Your task to perform on an android device: Open calendar and show me the third week of next month Image 0: 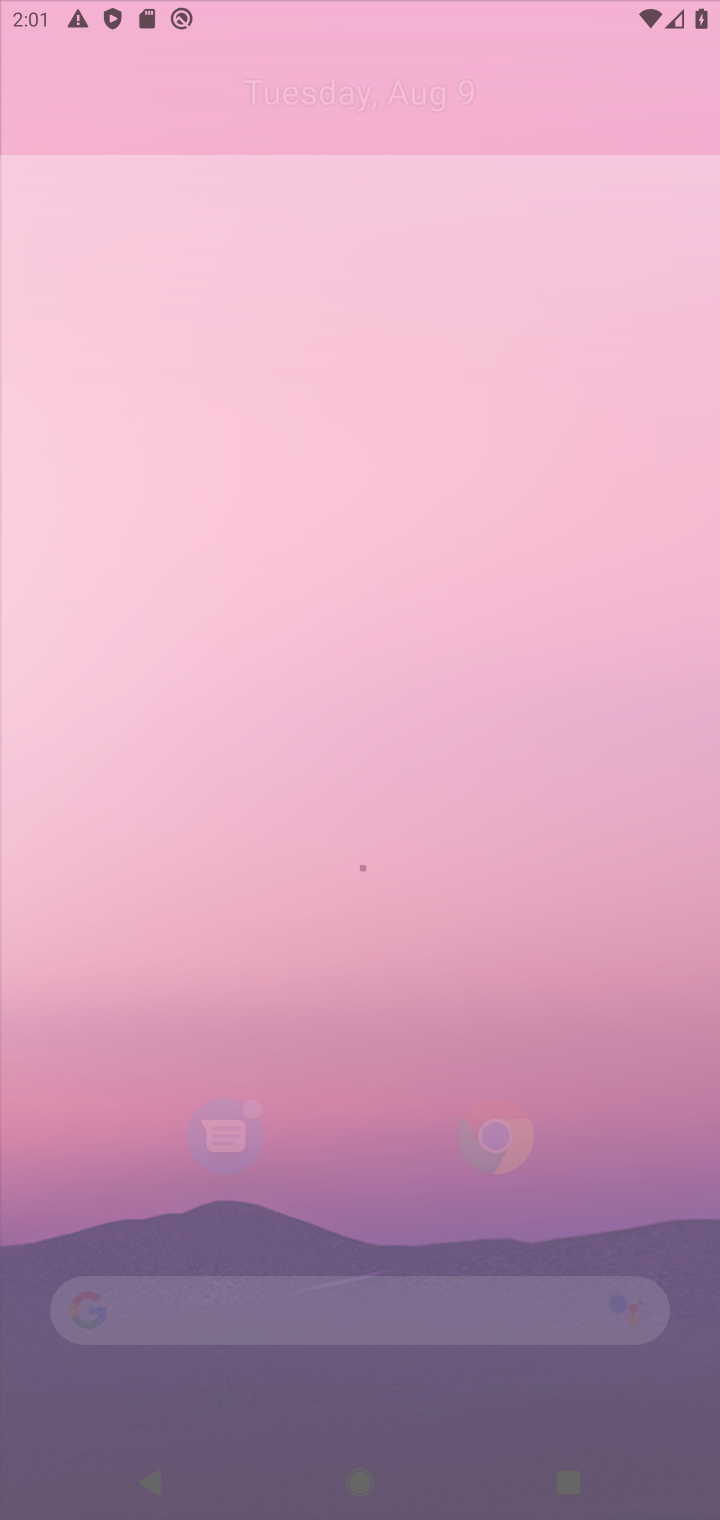
Step 0: press home button
Your task to perform on an android device: Open calendar and show me the third week of next month Image 1: 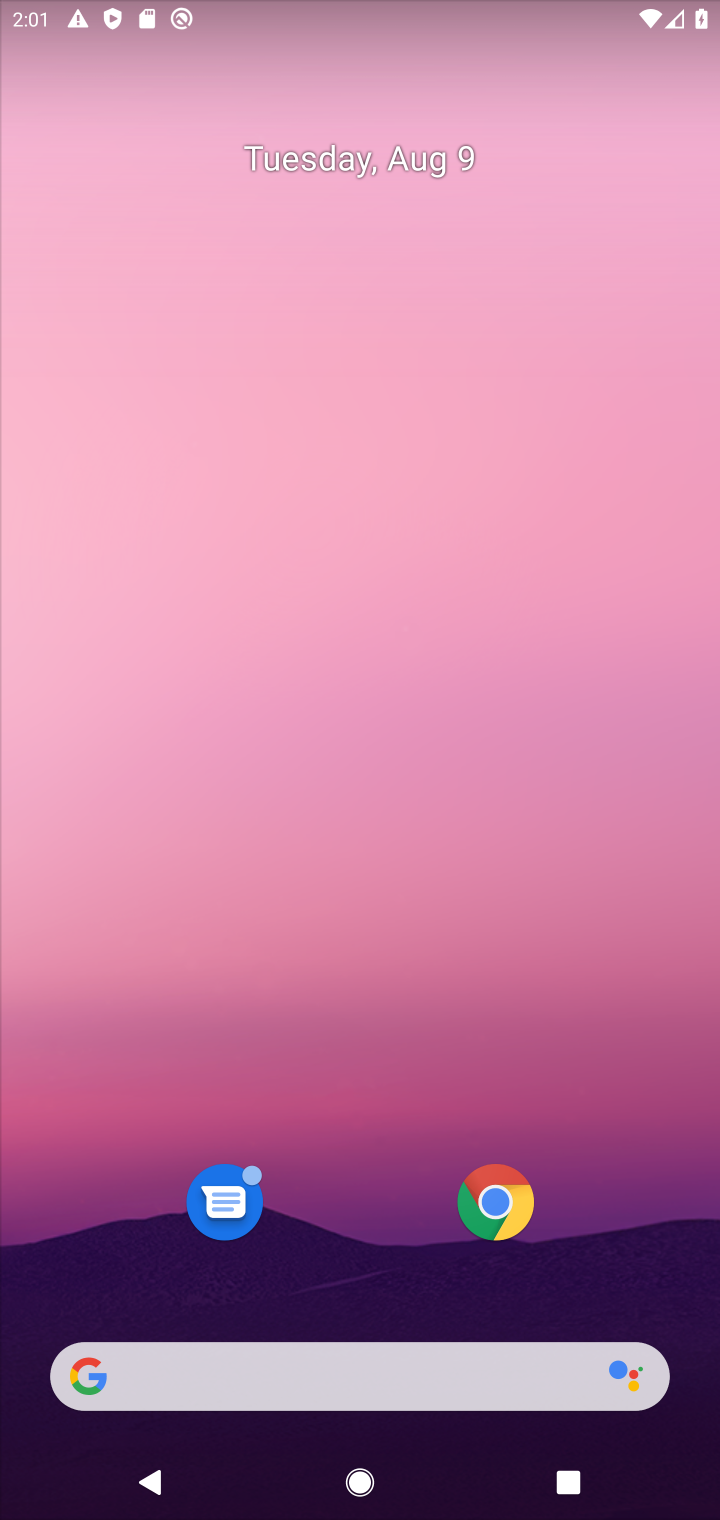
Step 1: drag from (293, 1382) to (369, 113)
Your task to perform on an android device: Open calendar and show me the third week of next month Image 2: 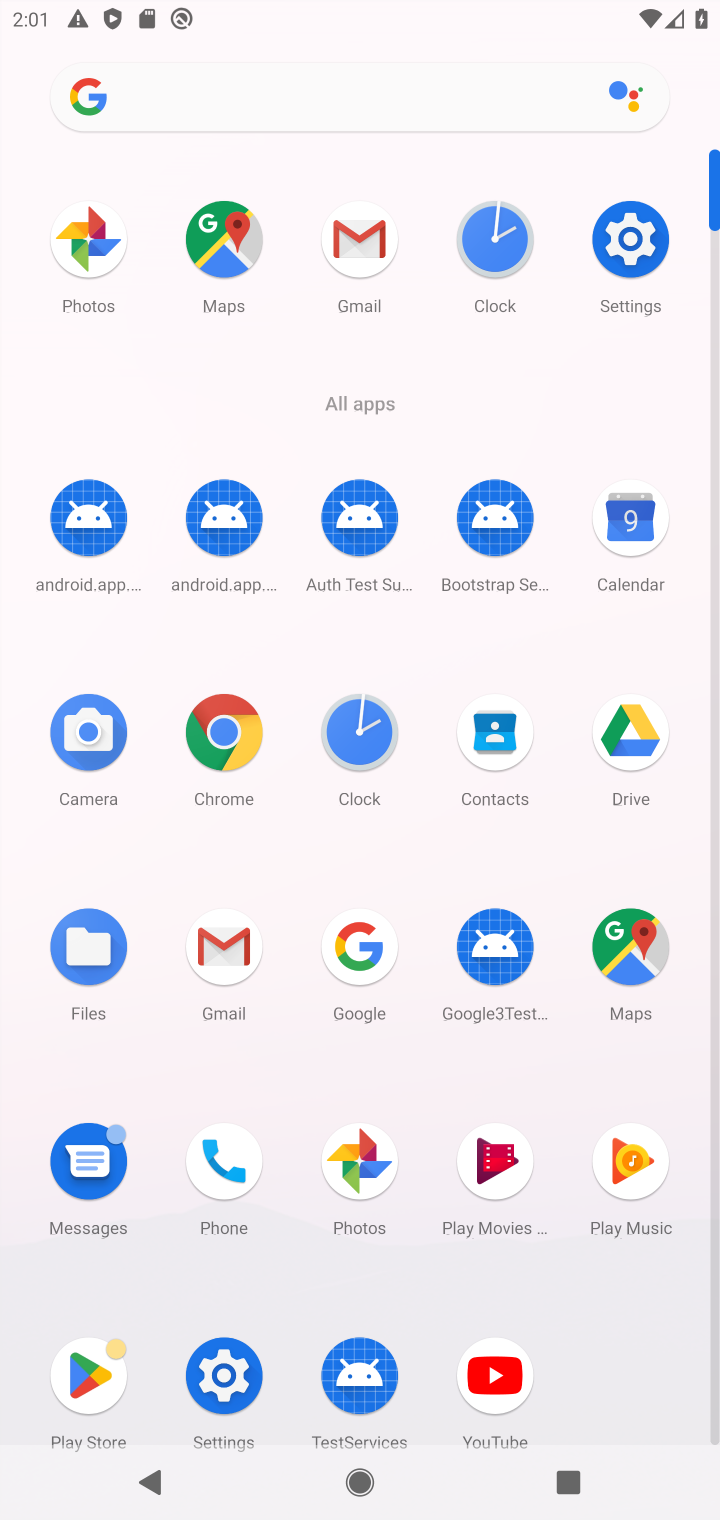
Step 2: click (208, 745)
Your task to perform on an android device: Open calendar and show me the third week of next month Image 3: 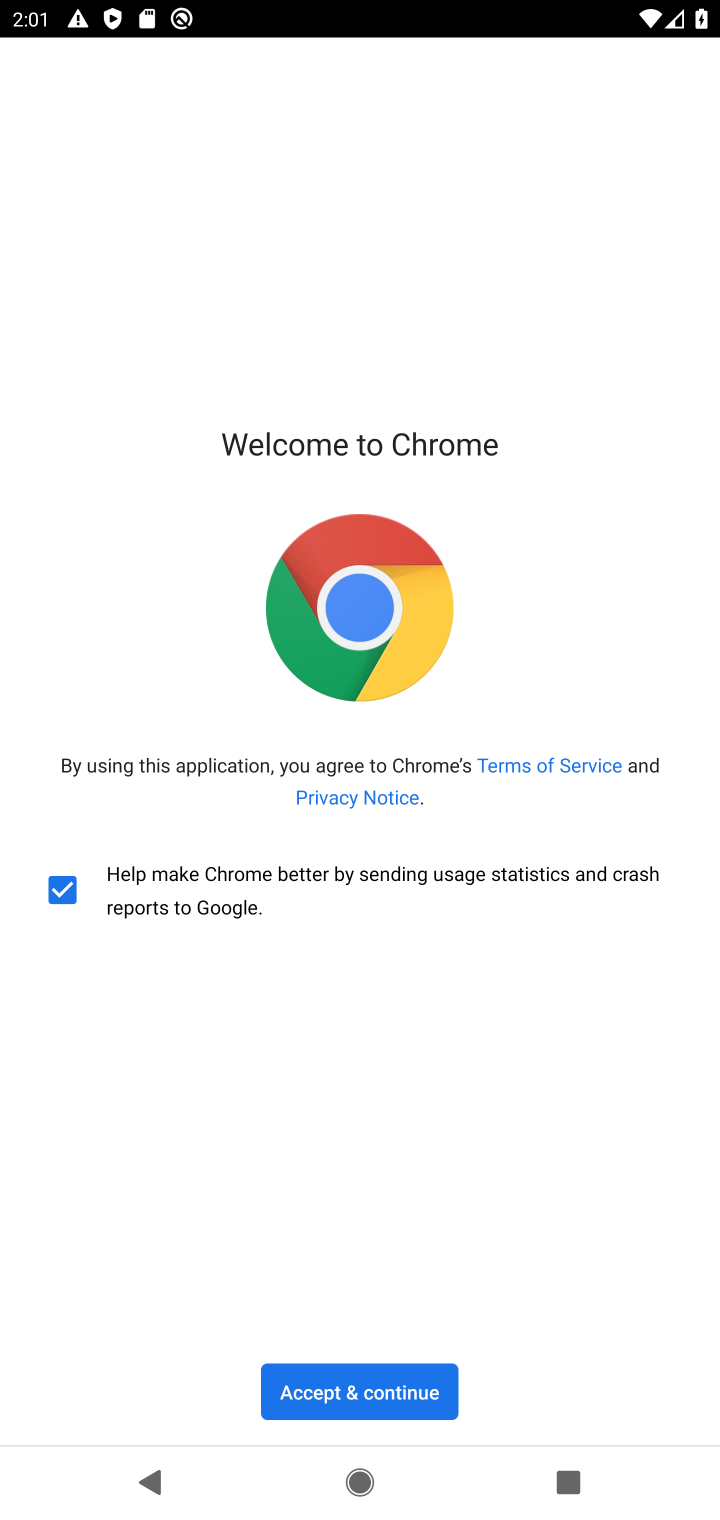
Step 3: click (319, 1373)
Your task to perform on an android device: Open calendar and show me the third week of next month Image 4: 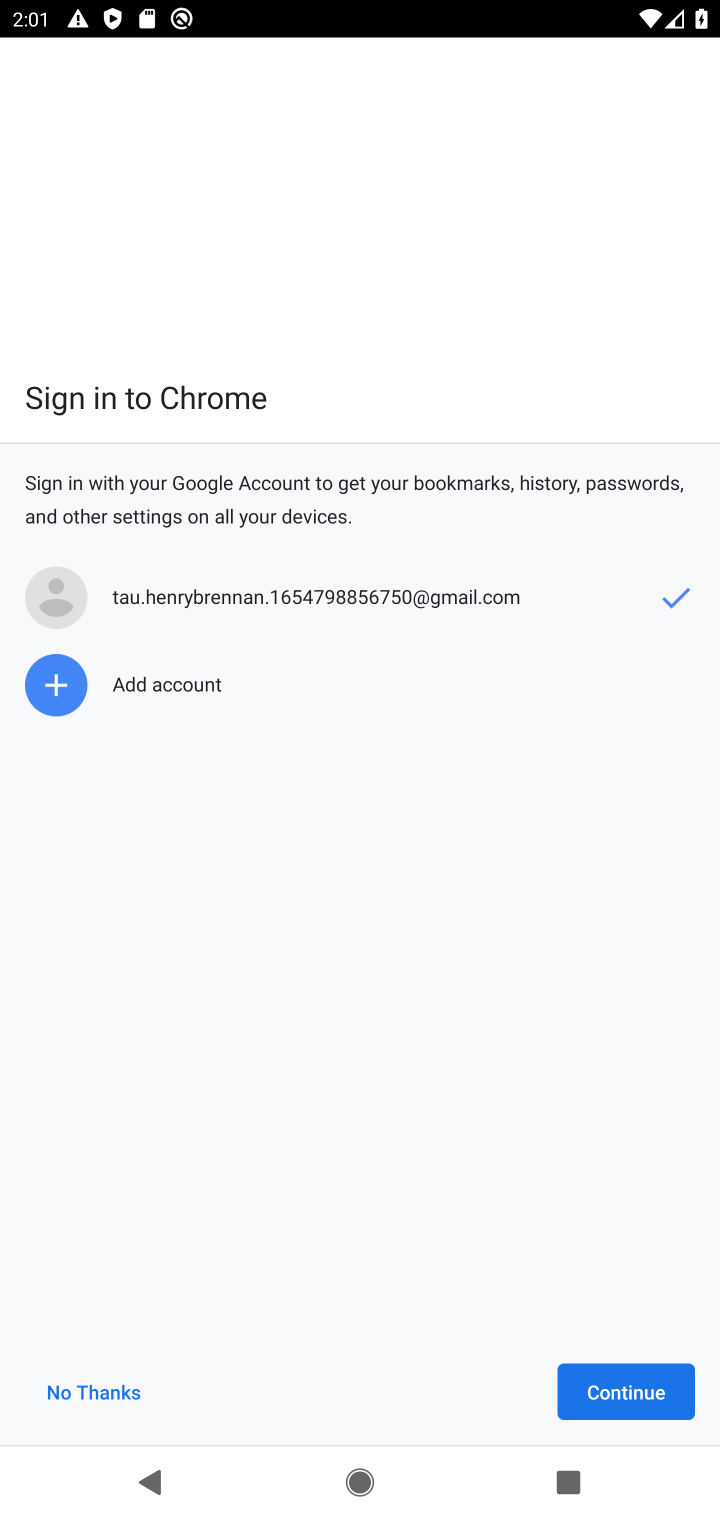
Step 4: click (91, 1393)
Your task to perform on an android device: Open calendar and show me the third week of next month Image 5: 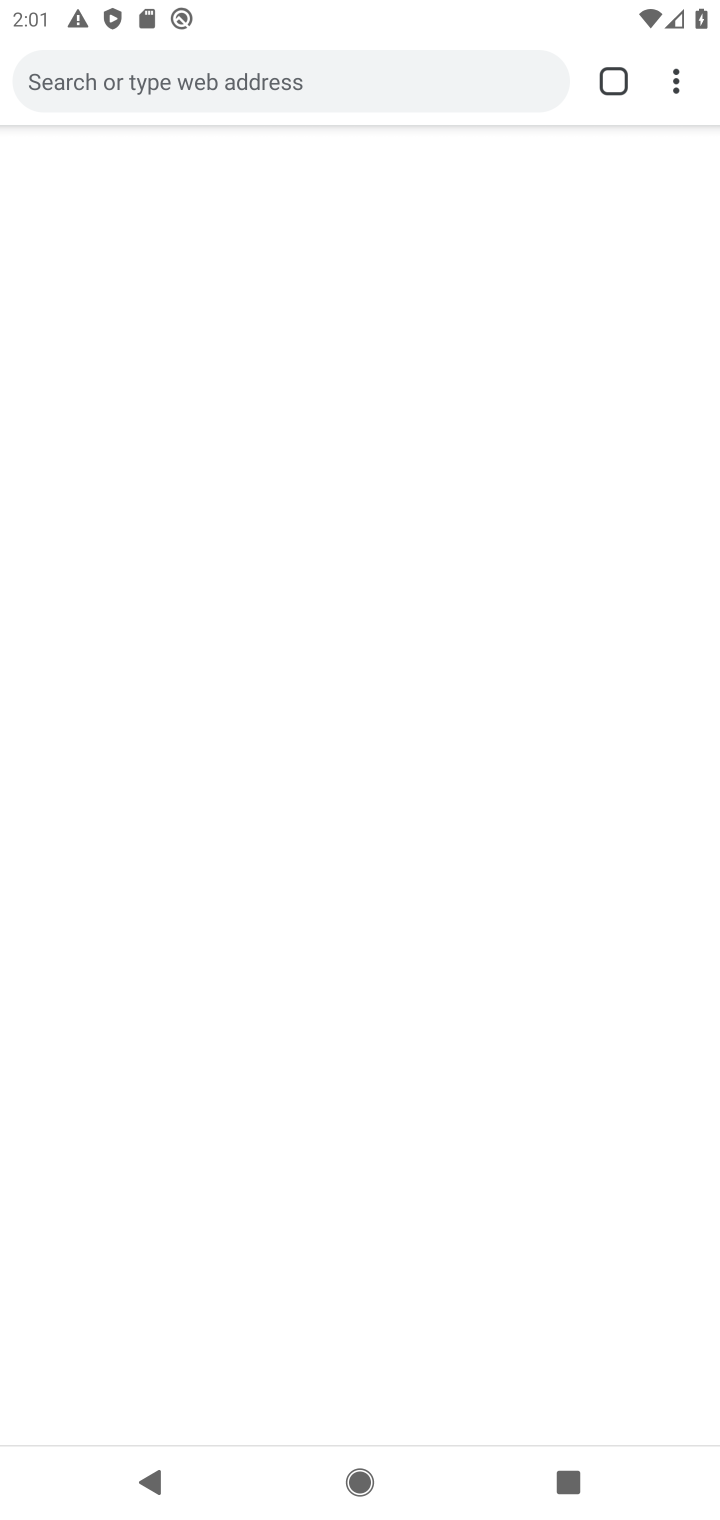
Step 5: press home button
Your task to perform on an android device: Open calendar and show me the third week of next month Image 6: 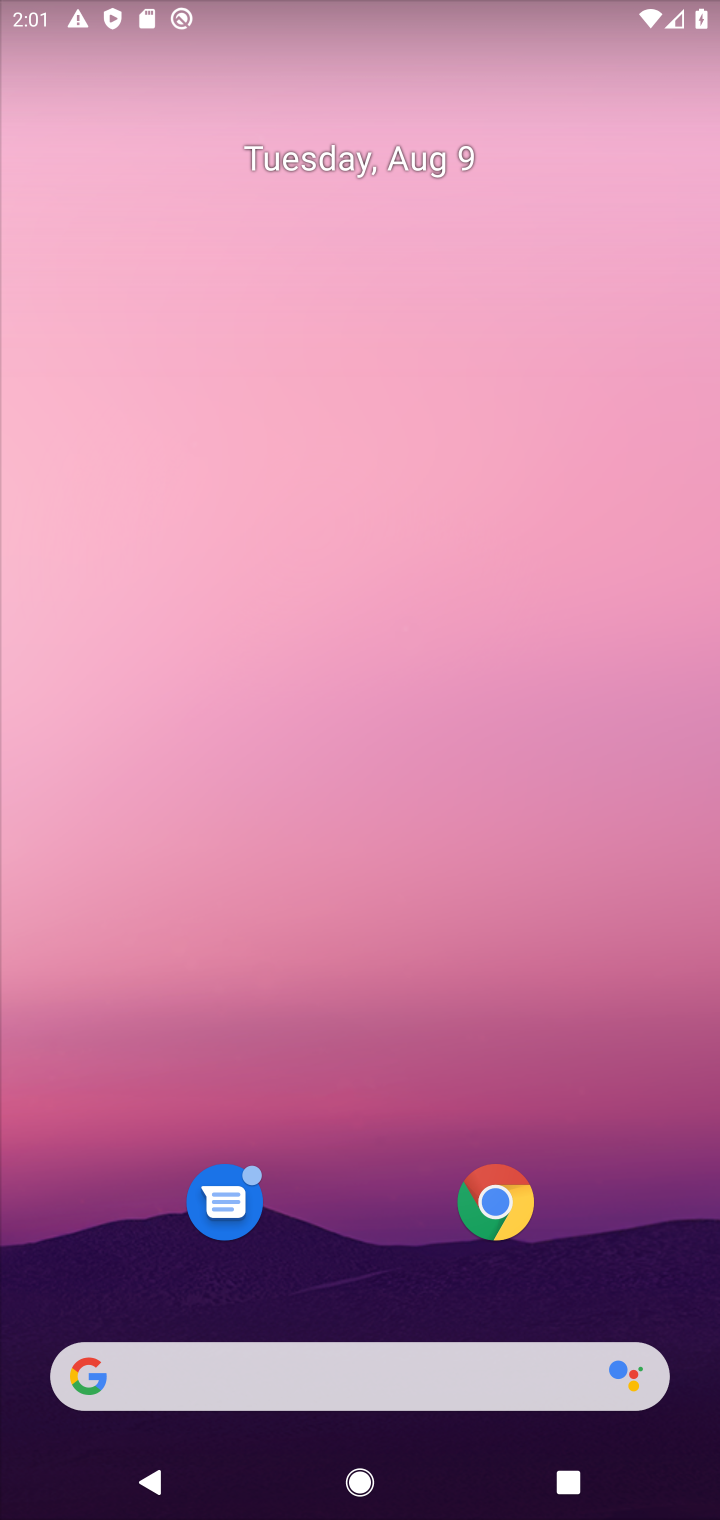
Step 6: drag from (349, 806) to (399, 531)
Your task to perform on an android device: Open calendar and show me the third week of next month Image 7: 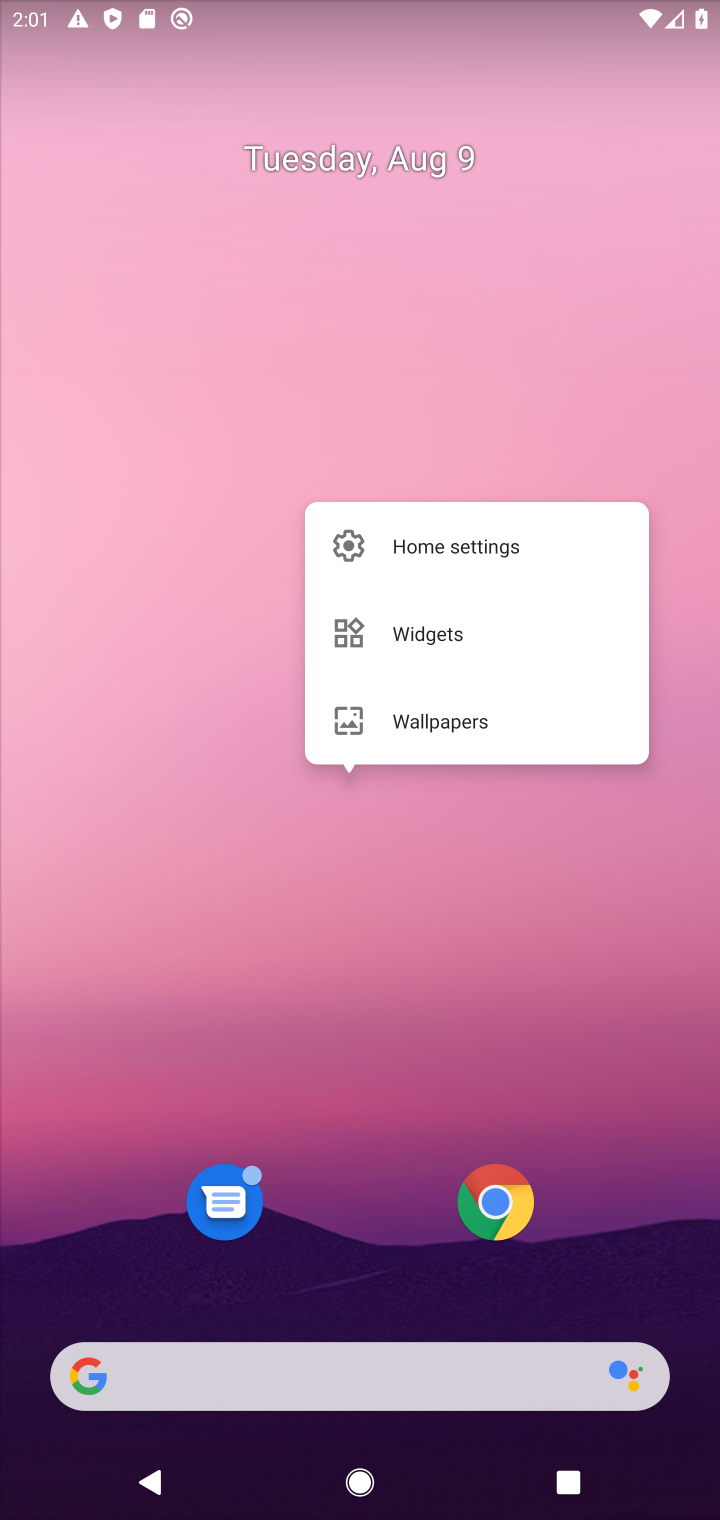
Step 7: click (602, 1157)
Your task to perform on an android device: Open calendar and show me the third week of next month Image 8: 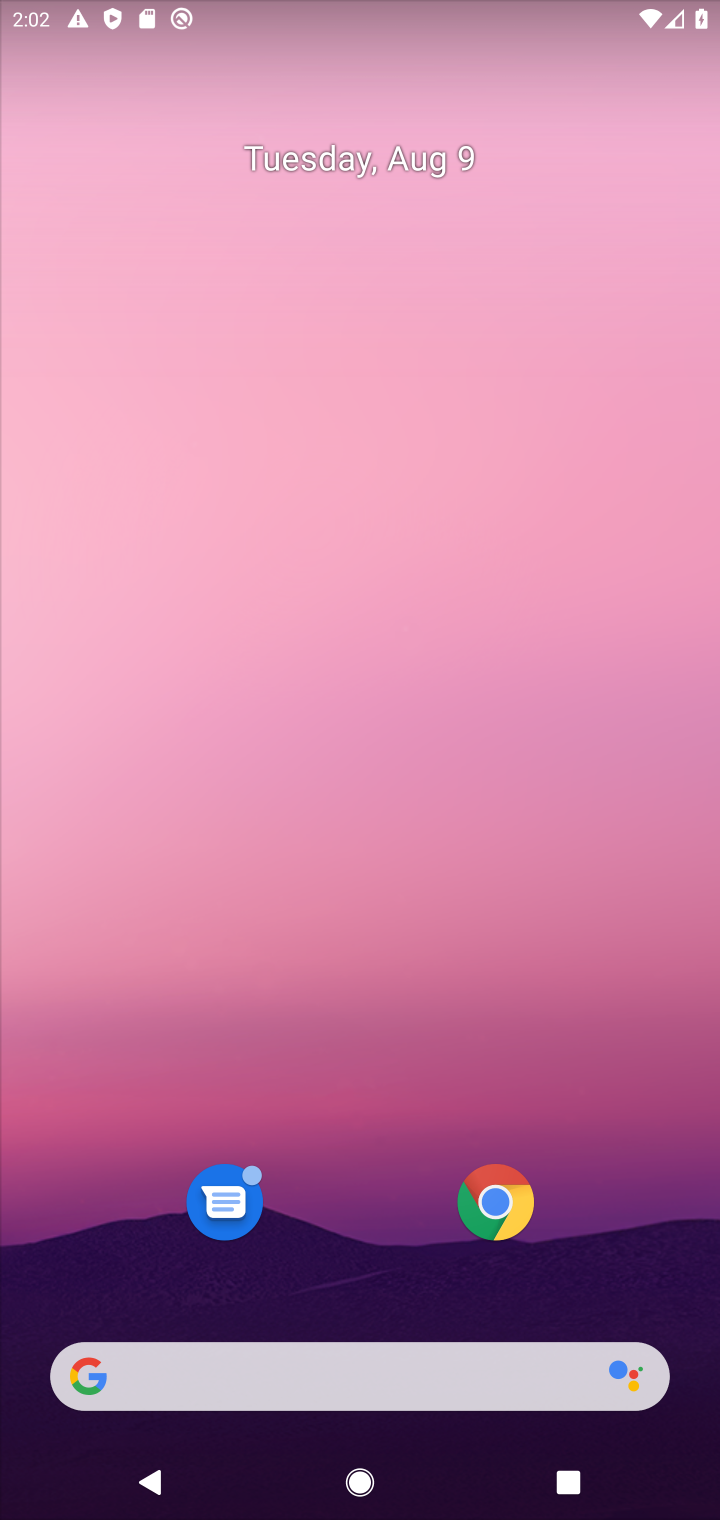
Step 8: drag from (311, 1383) to (69, 370)
Your task to perform on an android device: Open calendar and show me the third week of next month Image 9: 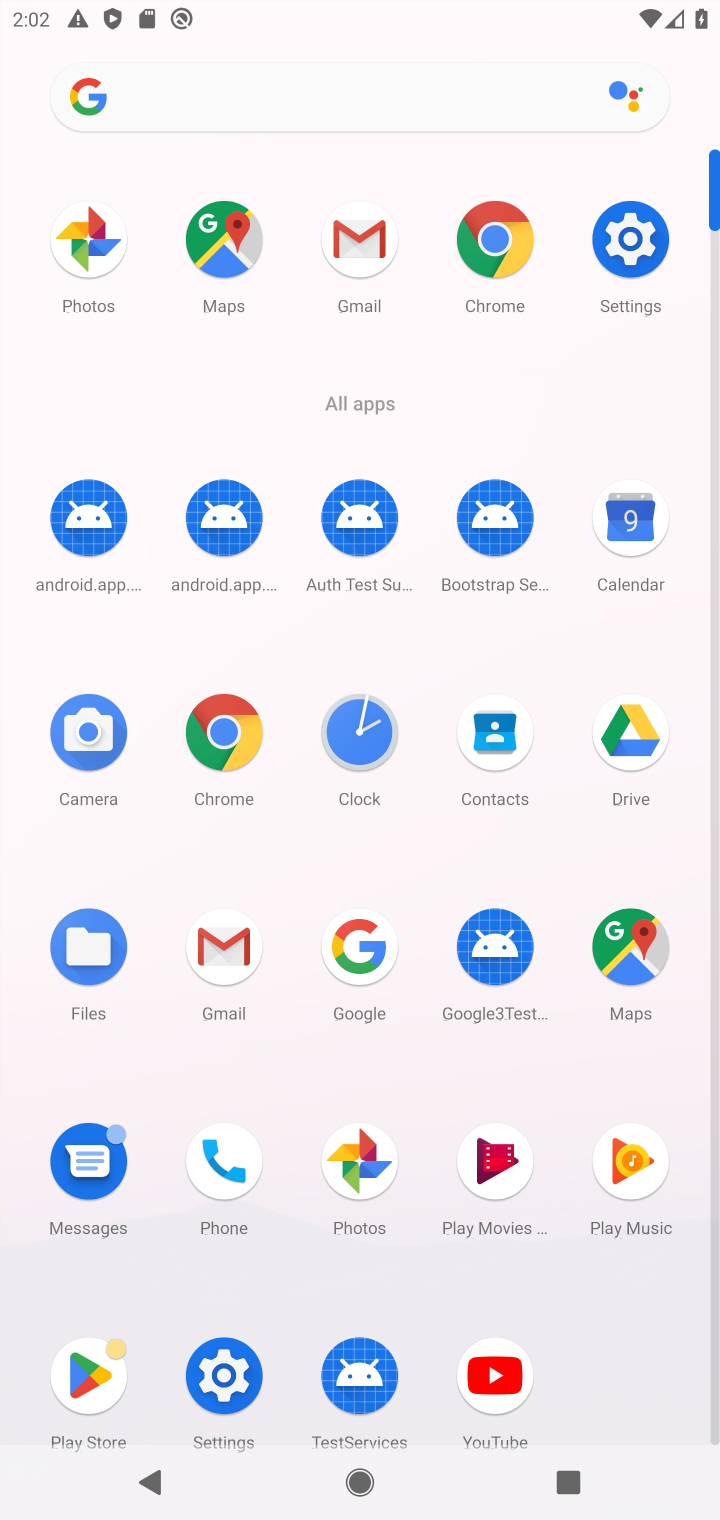
Step 9: click (637, 519)
Your task to perform on an android device: Open calendar and show me the third week of next month Image 10: 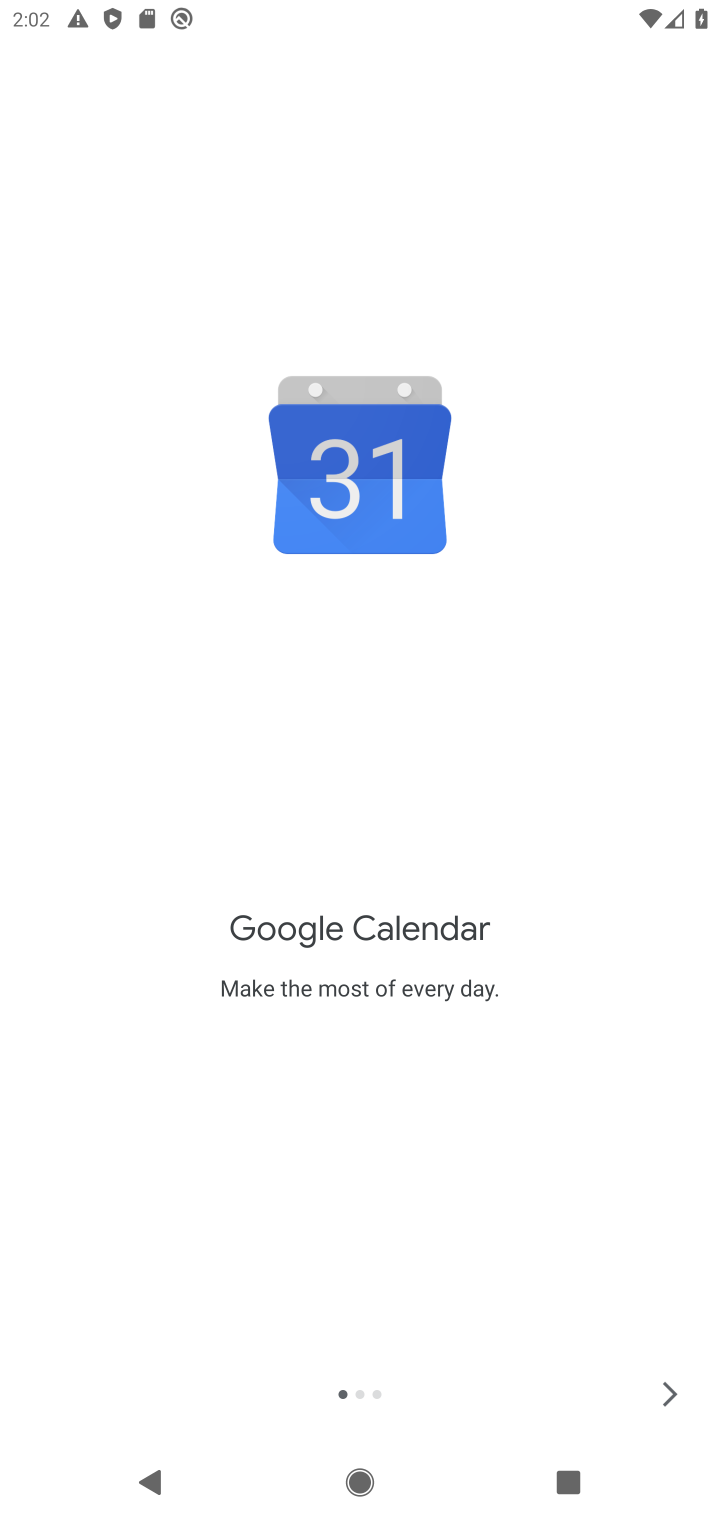
Step 10: click (657, 1390)
Your task to perform on an android device: Open calendar and show me the third week of next month Image 11: 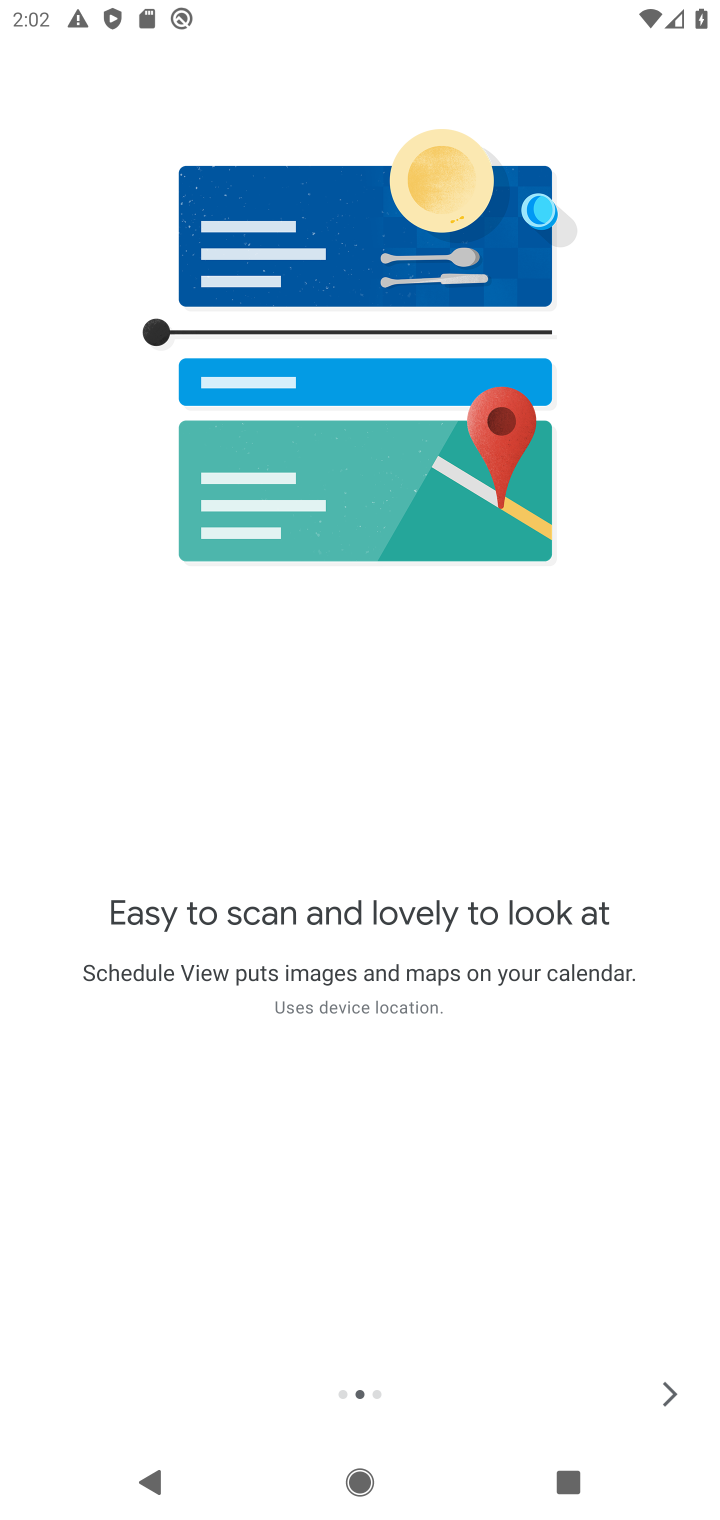
Step 11: click (672, 1388)
Your task to perform on an android device: Open calendar and show me the third week of next month Image 12: 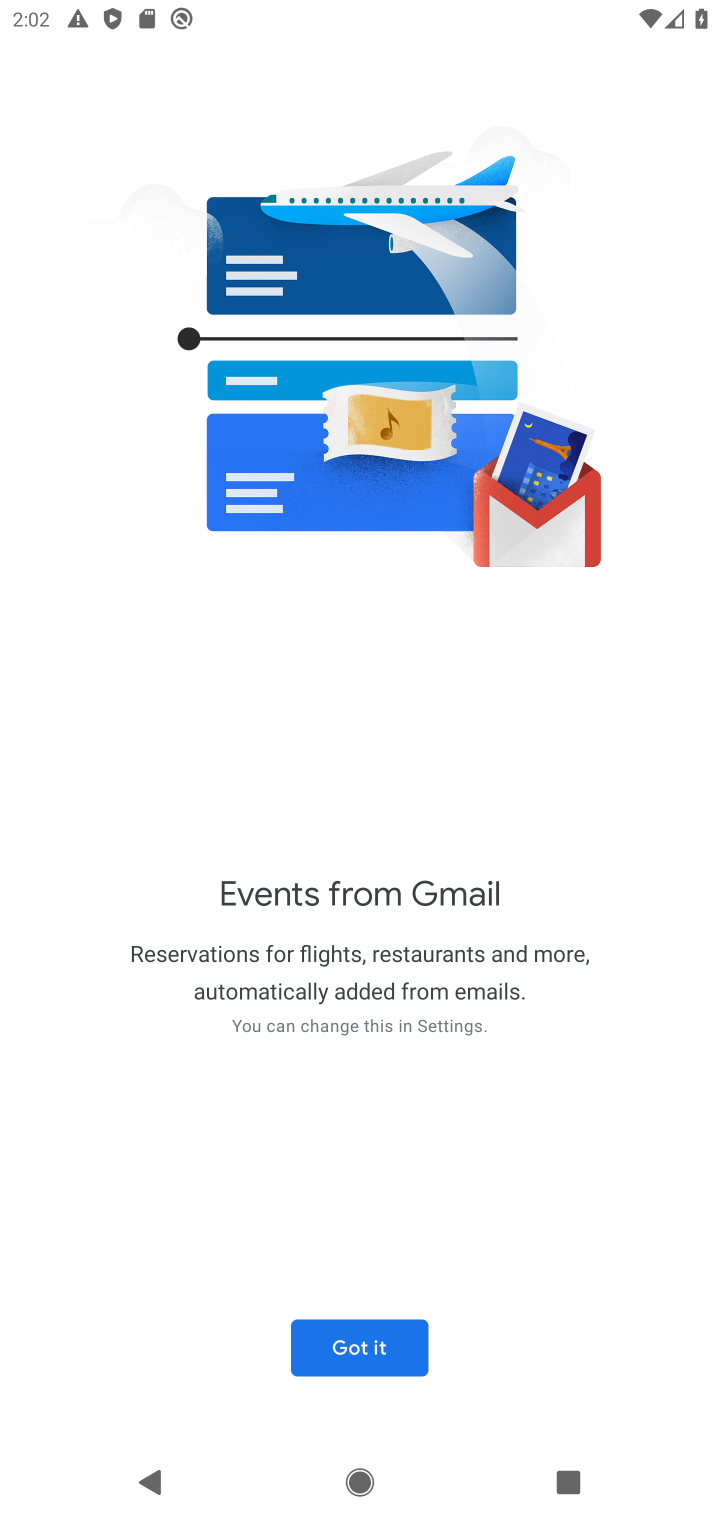
Step 12: click (405, 1336)
Your task to perform on an android device: Open calendar and show me the third week of next month Image 13: 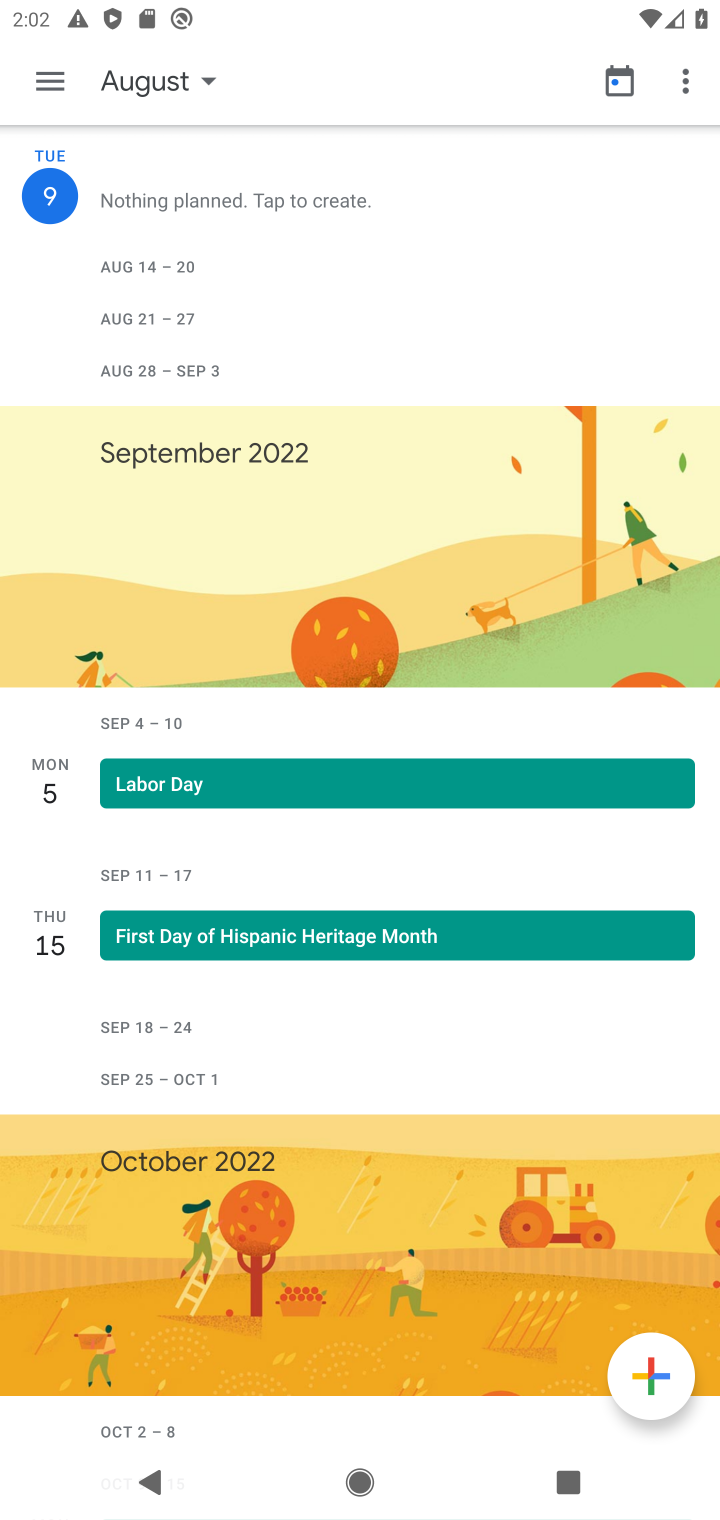
Step 13: click (202, 72)
Your task to perform on an android device: Open calendar and show me the third week of next month Image 14: 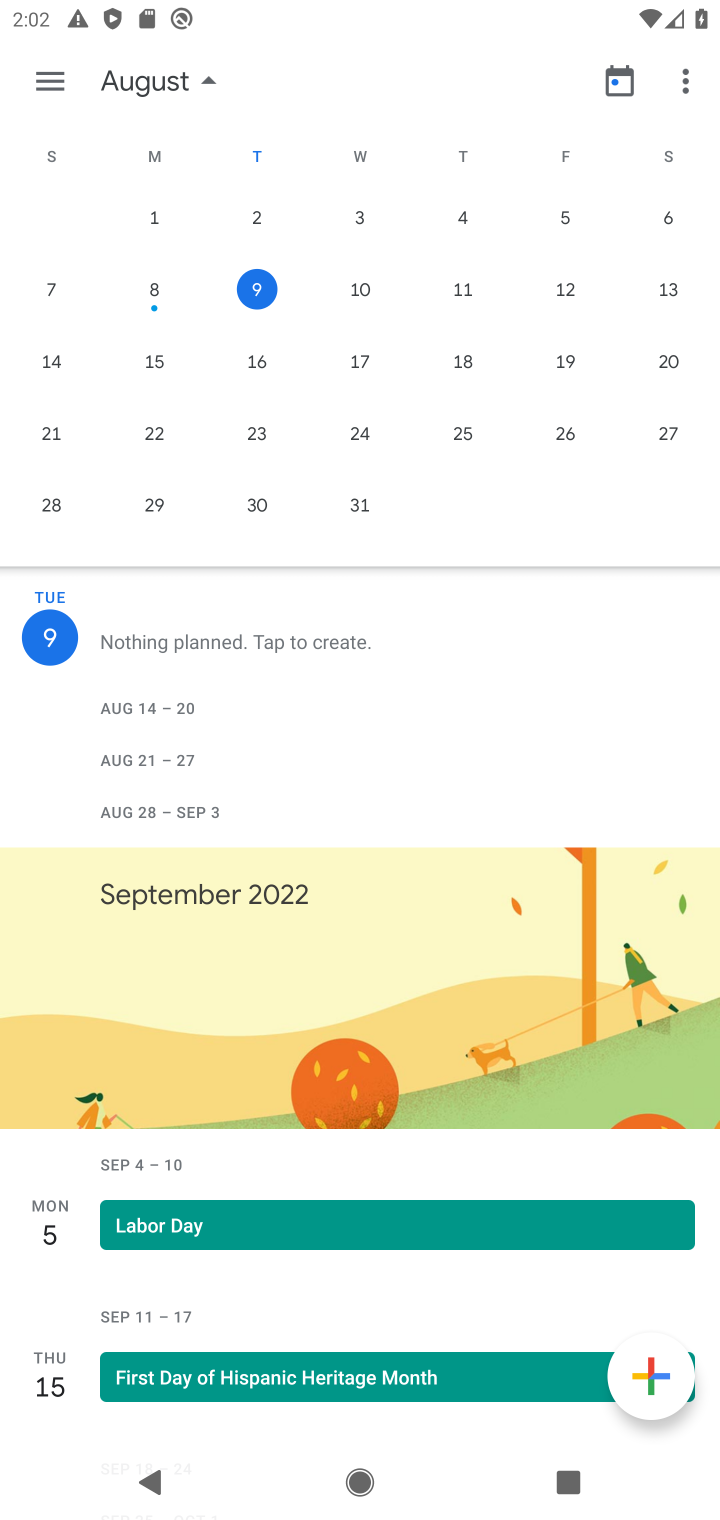
Step 14: drag from (613, 389) to (91, 337)
Your task to perform on an android device: Open calendar and show me the third week of next month Image 15: 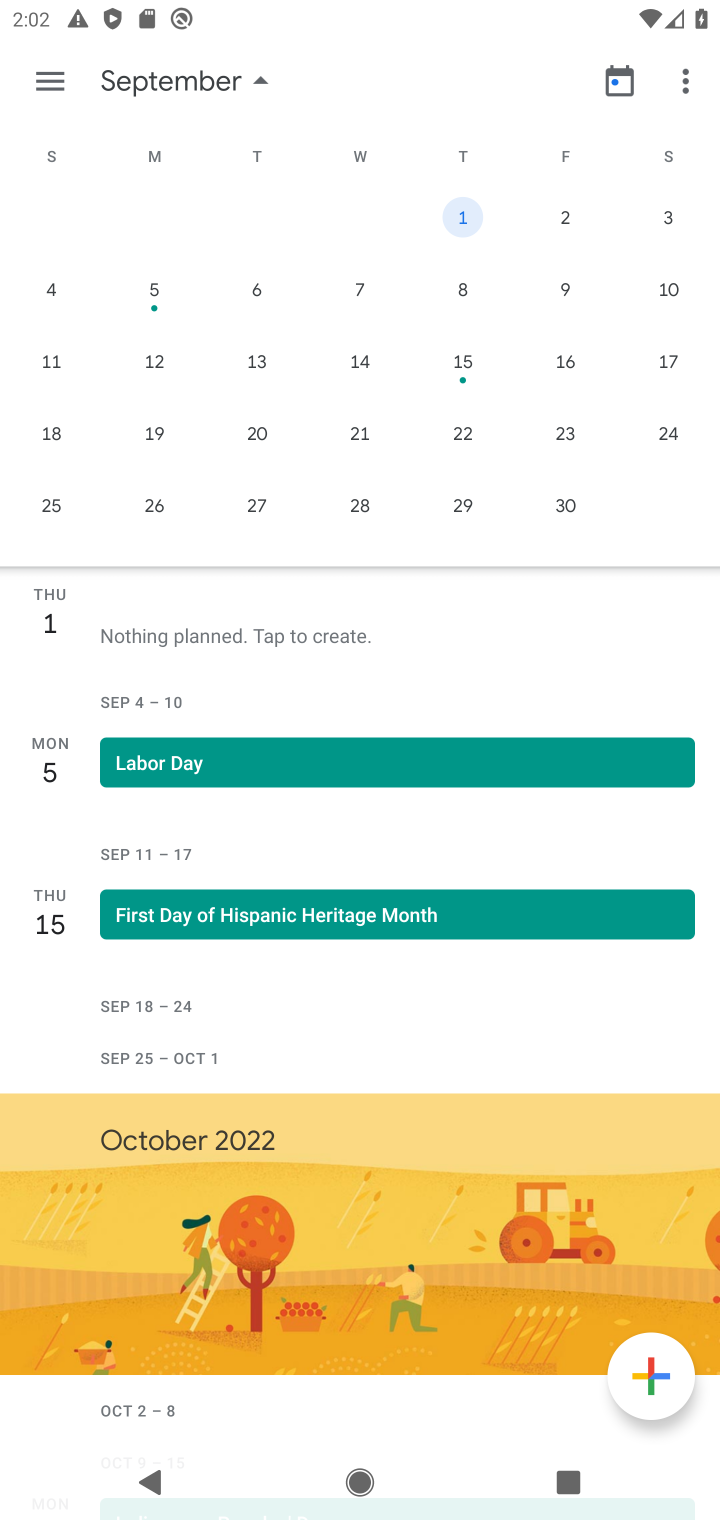
Step 15: click (357, 362)
Your task to perform on an android device: Open calendar and show me the third week of next month Image 16: 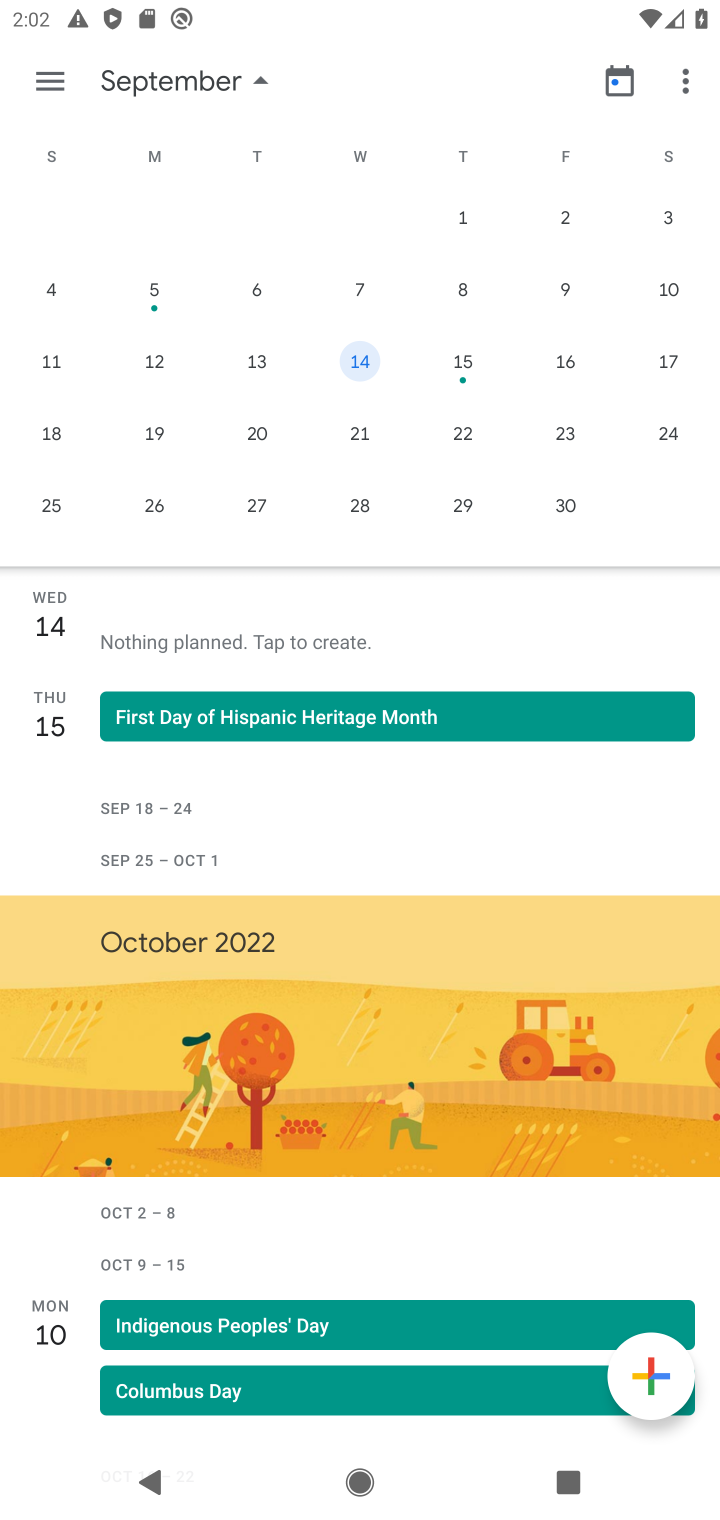
Step 16: task complete